Your task to perform on an android device: allow notifications from all sites in the chrome app Image 0: 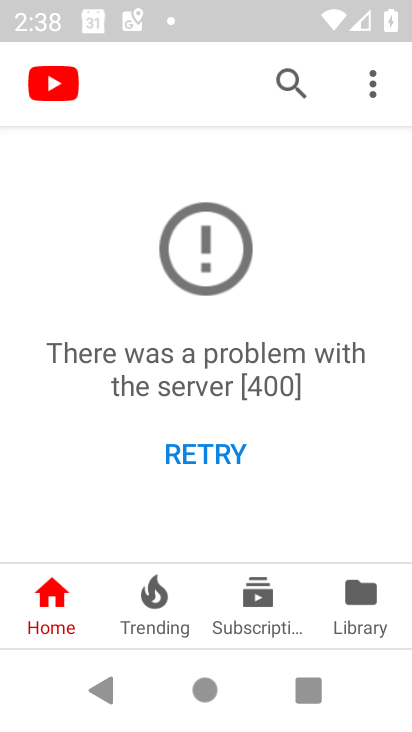
Step 0: press home button
Your task to perform on an android device: allow notifications from all sites in the chrome app Image 1: 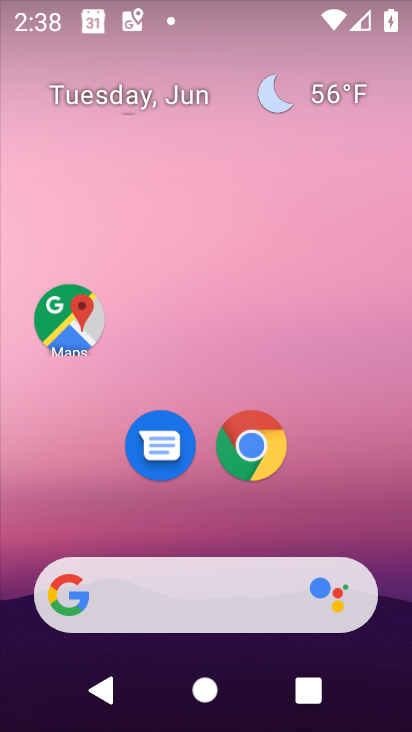
Step 1: click (266, 436)
Your task to perform on an android device: allow notifications from all sites in the chrome app Image 2: 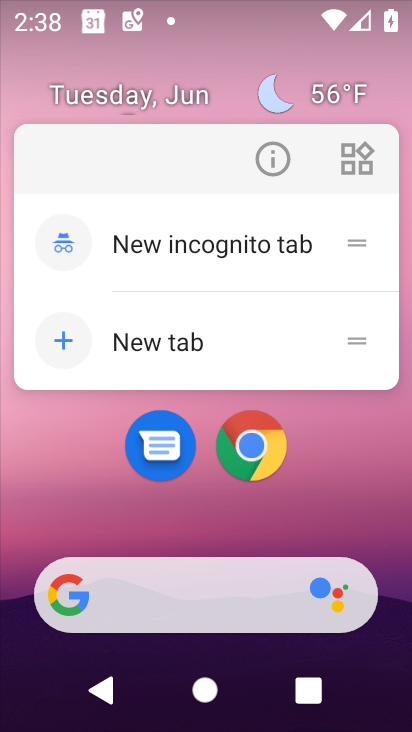
Step 2: click (286, 135)
Your task to perform on an android device: allow notifications from all sites in the chrome app Image 3: 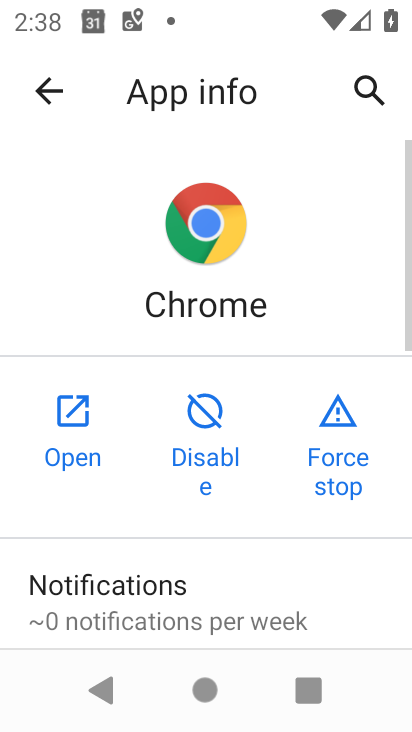
Step 3: click (124, 589)
Your task to perform on an android device: allow notifications from all sites in the chrome app Image 4: 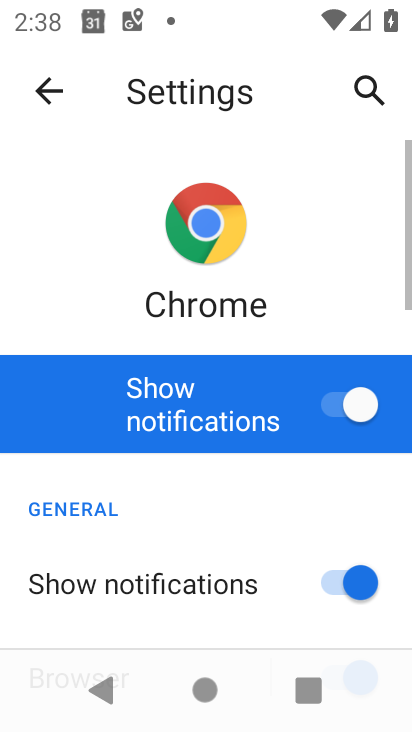
Step 4: task complete